Your task to perform on an android device: What is the news today? Image 0: 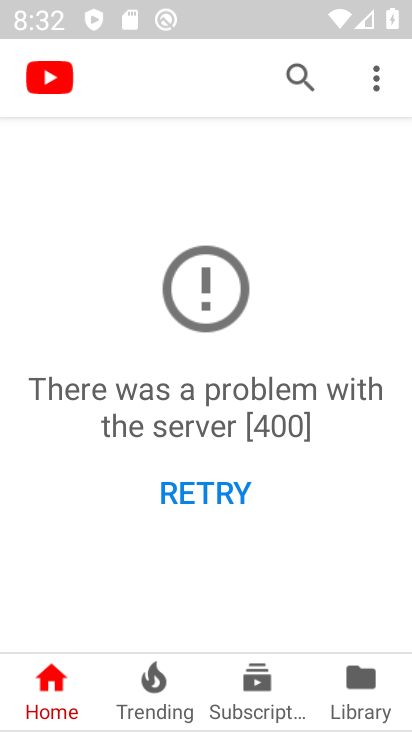
Step 0: press home button
Your task to perform on an android device: What is the news today? Image 1: 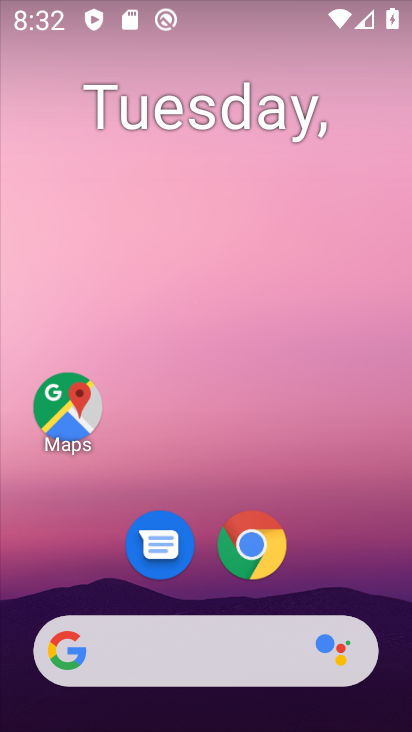
Step 1: click (248, 547)
Your task to perform on an android device: What is the news today? Image 2: 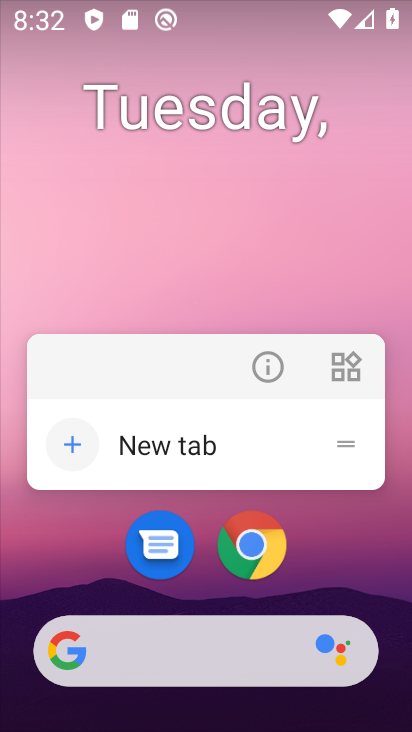
Step 2: click (251, 527)
Your task to perform on an android device: What is the news today? Image 3: 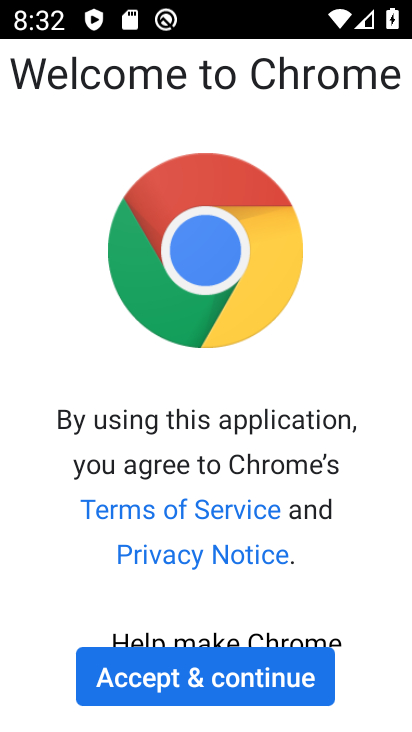
Step 3: click (270, 676)
Your task to perform on an android device: What is the news today? Image 4: 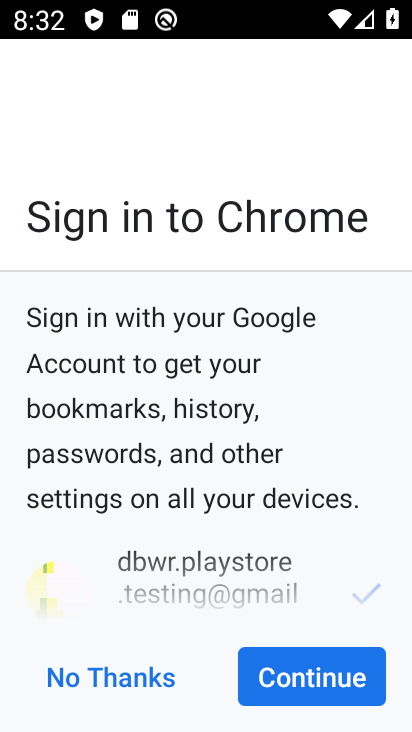
Step 4: click (270, 676)
Your task to perform on an android device: What is the news today? Image 5: 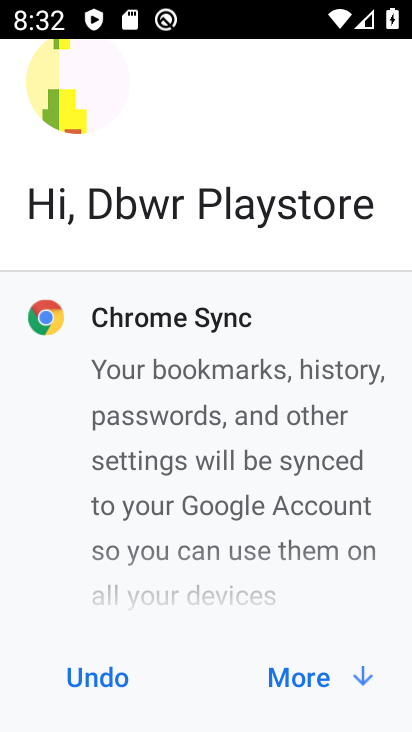
Step 5: click (270, 676)
Your task to perform on an android device: What is the news today? Image 6: 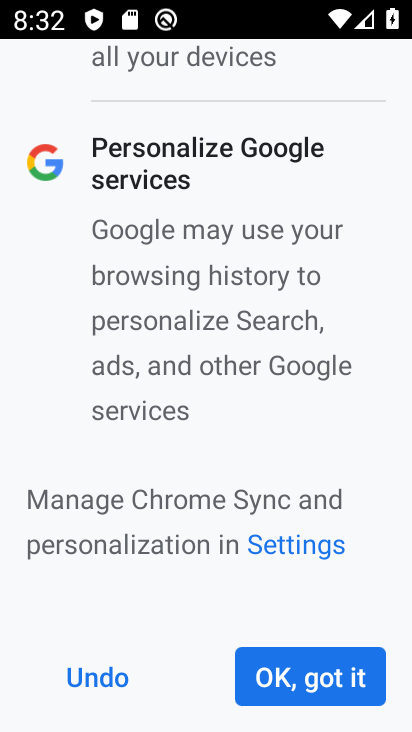
Step 6: click (270, 676)
Your task to perform on an android device: What is the news today? Image 7: 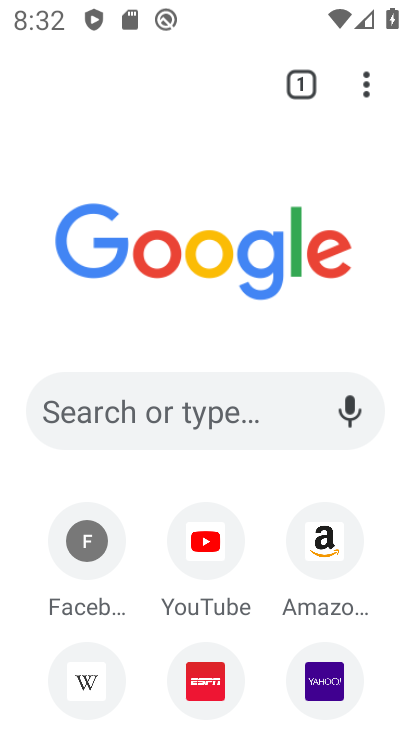
Step 7: click (163, 396)
Your task to perform on an android device: What is the news today? Image 8: 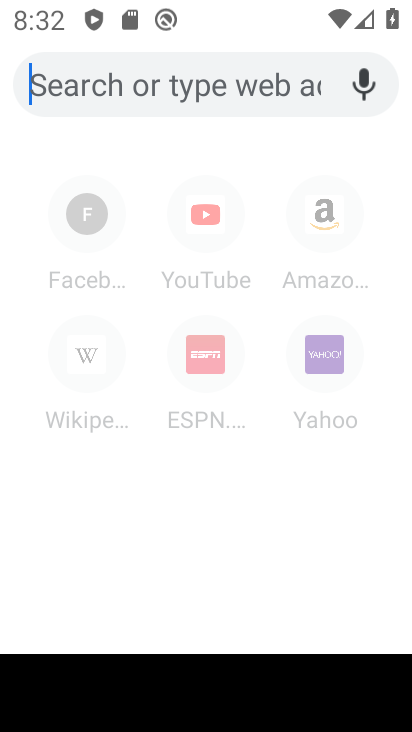
Step 8: type "What is the news today?"
Your task to perform on an android device: What is the news today? Image 9: 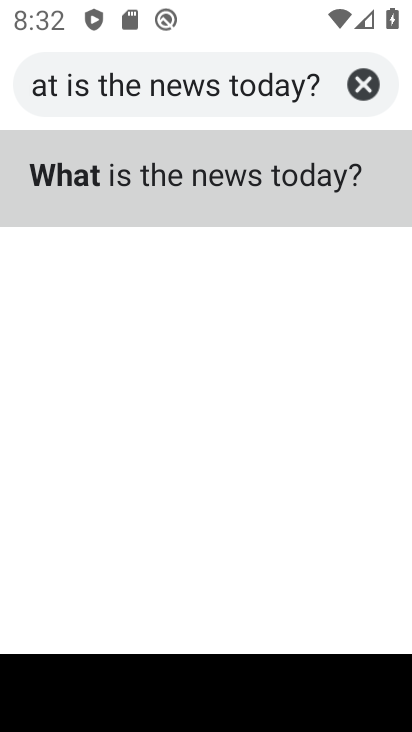
Step 9: click (322, 159)
Your task to perform on an android device: What is the news today? Image 10: 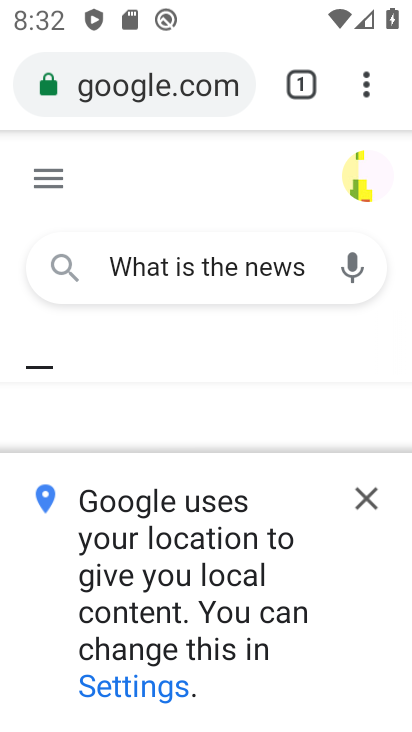
Step 10: click (368, 495)
Your task to perform on an android device: What is the news today? Image 11: 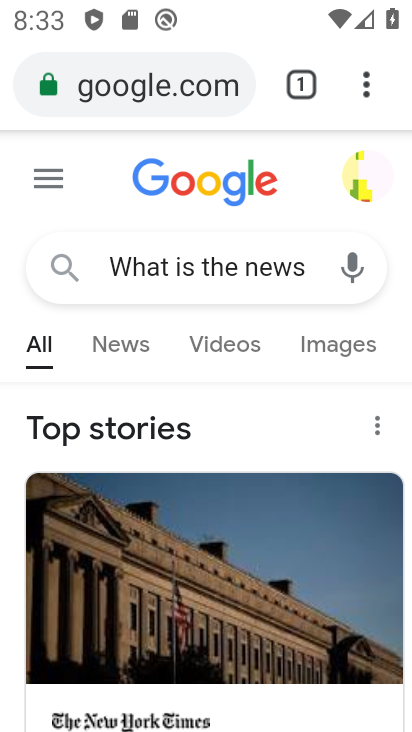
Step 11: task complete